Your task to perform on an android device: Search for 8K TVs on Best Buy. Image 0: 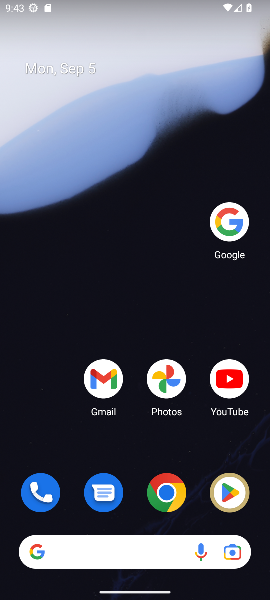
Step 0: click (222, 229)
Your task to perform on an android device: Search for 8K TVs on Best Buy. Image 1: 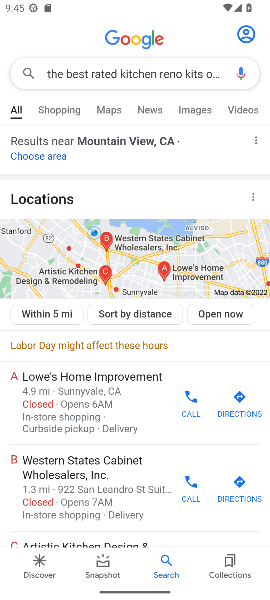
Step 1: task complete